Your task to perform on an android device: Open accessibility settings Image 0: 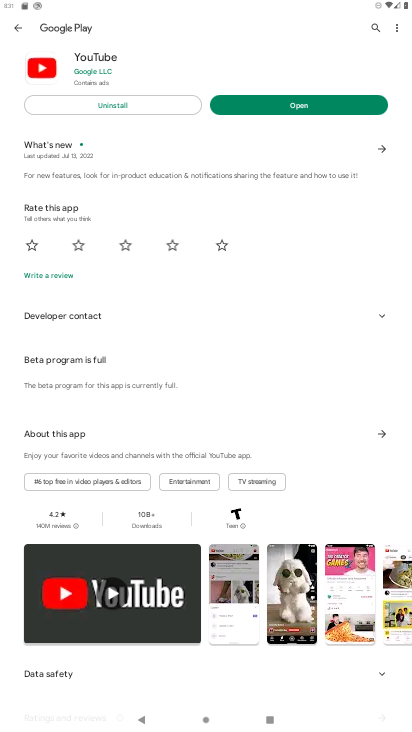
Step 0: press home button
Your task to perform on an android device: Open accessibility settings Image 1: 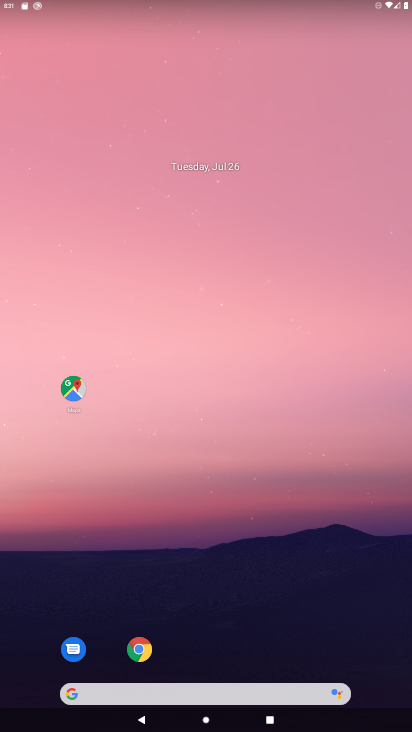
Step 1: drag from (228, 654) to (194, 0)
Your task to perform on an android device: Open accessibility settings Image 2: 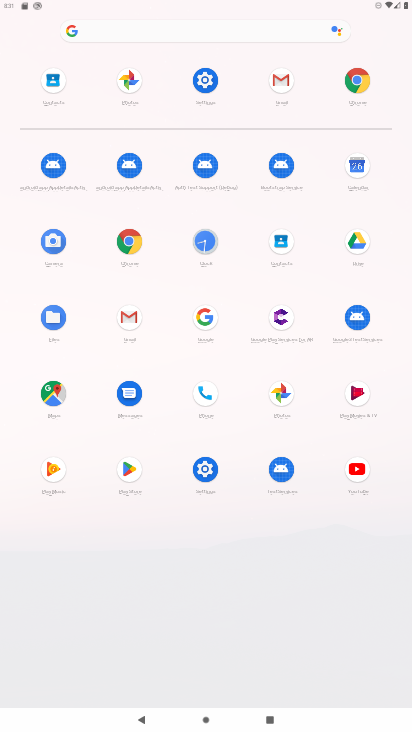
Step 2: click (196, 102)
Your task to perform on an android device: Open accessibility settings Image 3: 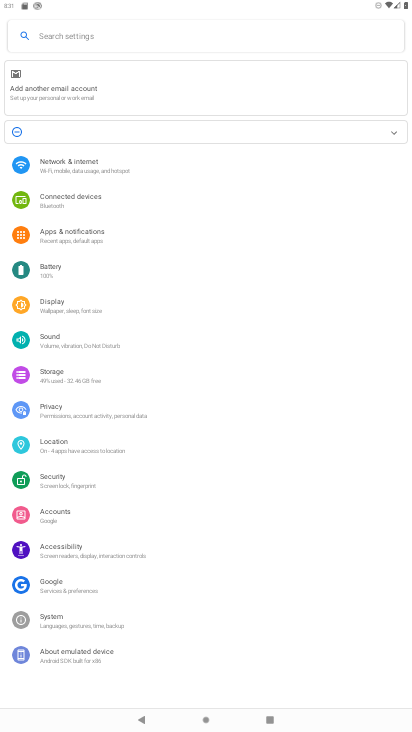
Step 3: click (83, 558)
Your task to perform on an android device: Open accessibility settings Image 4: 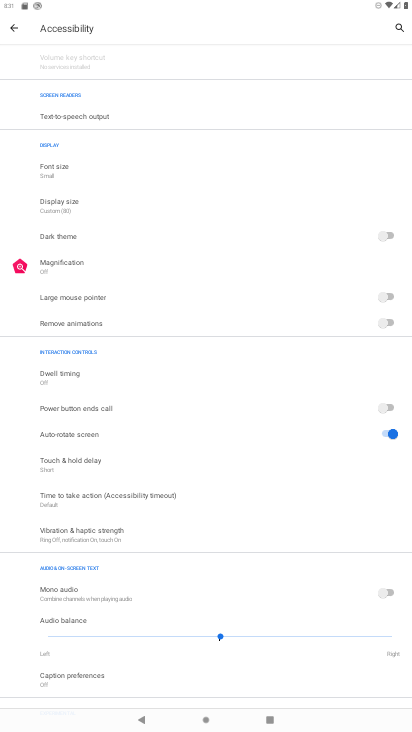
Step 4: task complete